Your task to perform on an android device: Open location settings Image 0: 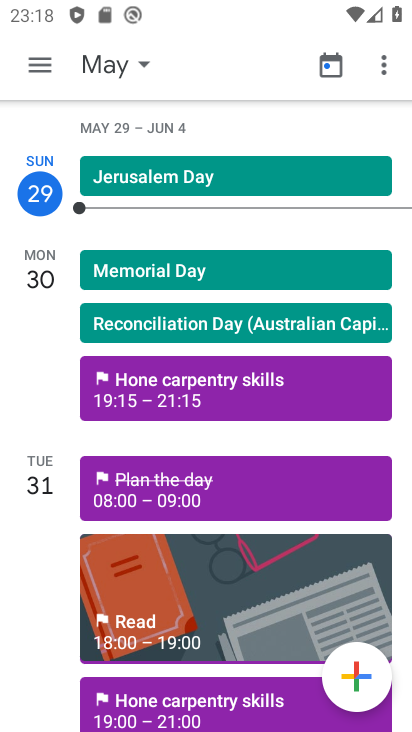
Step 0: press home button
Your task to perform on an android device: Open location settings Image 1: 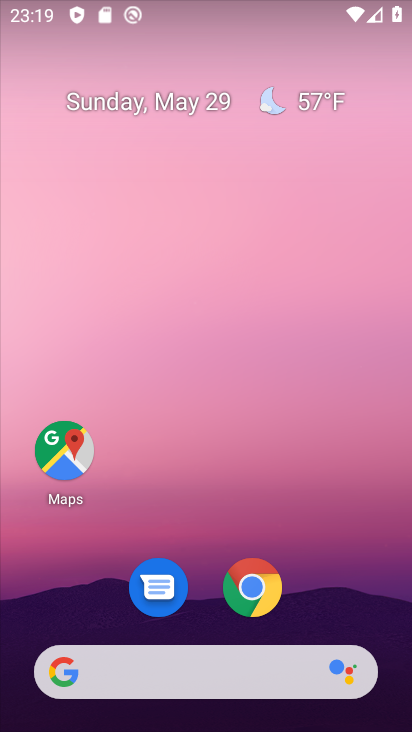
Step 1: drag from (342, 587) to (259, 101)
Your task to perform on an android device: Open location settings Image 2: 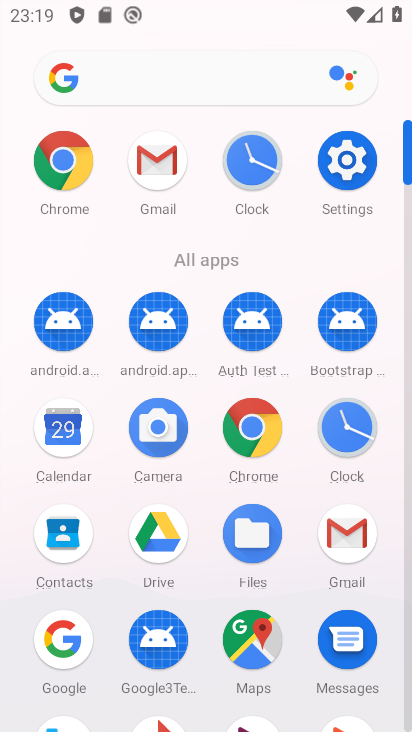
Step 2: click (346, 183)
Your task to perform on an android device: Open location settings Image 3: 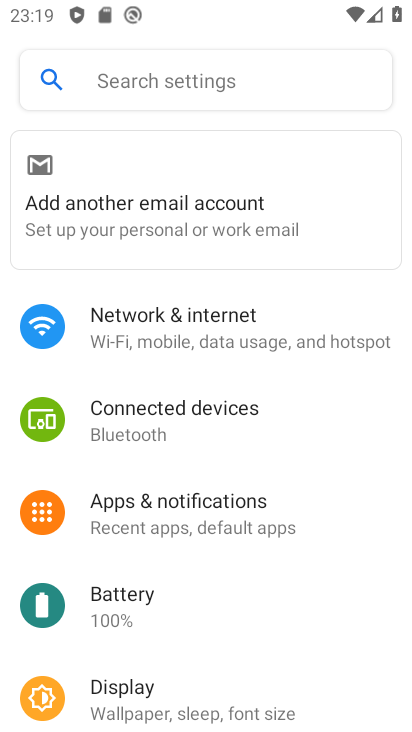
Step 3: drag from (237, 552) to (227, 170)
Your task to perform on an android device: Open location settings Image 4: 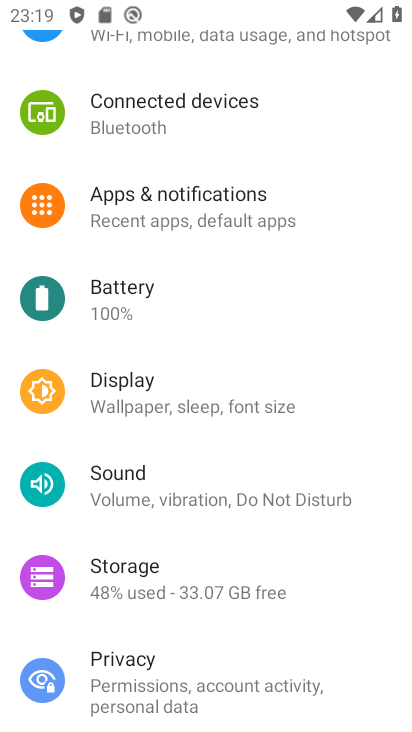
Step 4: click (268, 173)
Your task to perform on an android device: Open location settings Image 5: 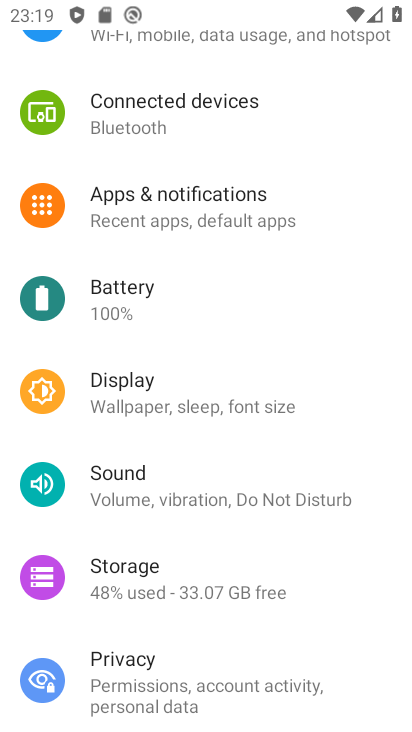
Step 5: drag from (171, 617) to (161, 211)
Your task to perform on an android device: Open location settings Image 6: 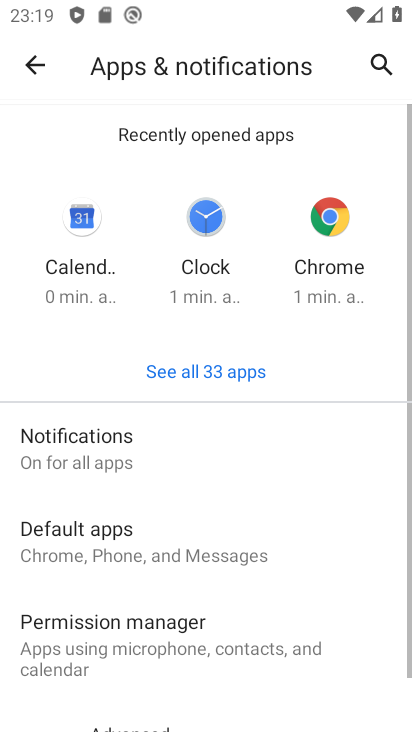
Step 6: click (44, 77)
Your task to perform on an android device: Open location settings Image 7: 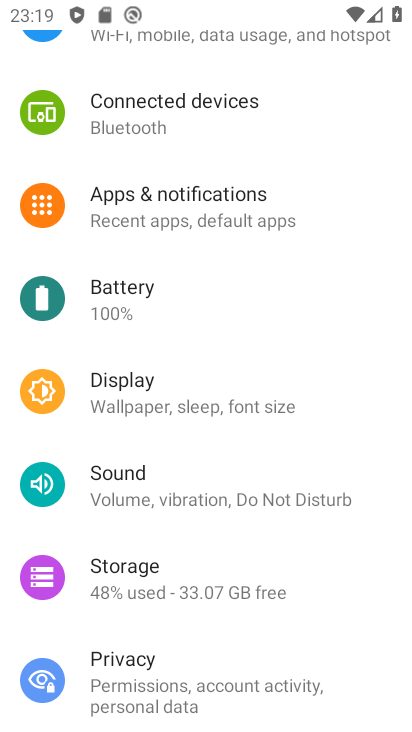
Step 7: drag from (203, 620) to (216, 212)
Your task to perform on an android device: Open location settings Image 8: 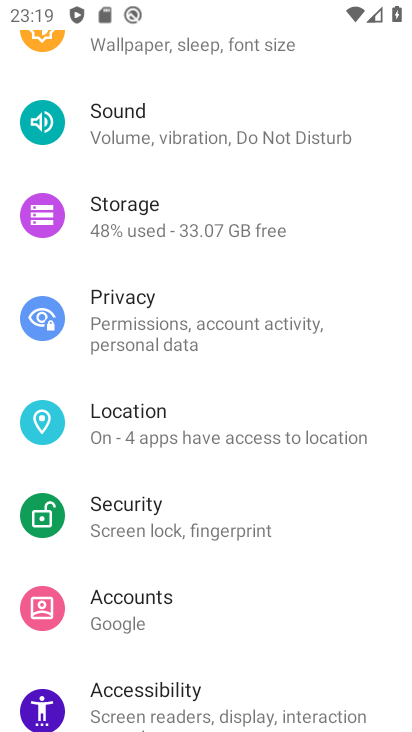
Step 8: click (184, 425)
Your task to perform on an android device: Open location settings Image 9: 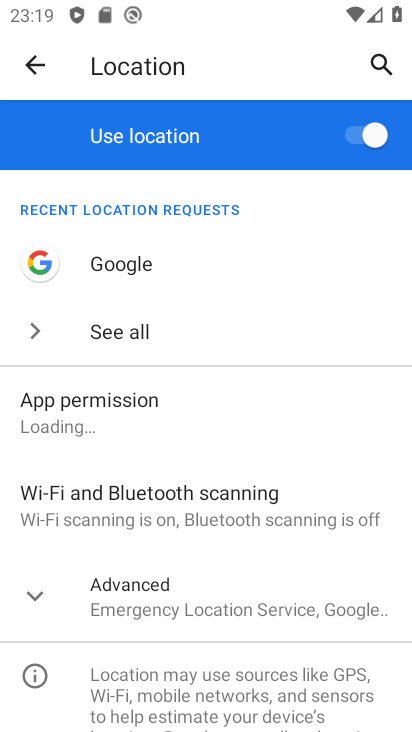
Step 9: task complete